Your task to perform on an android device: Go to network settings Image 0: 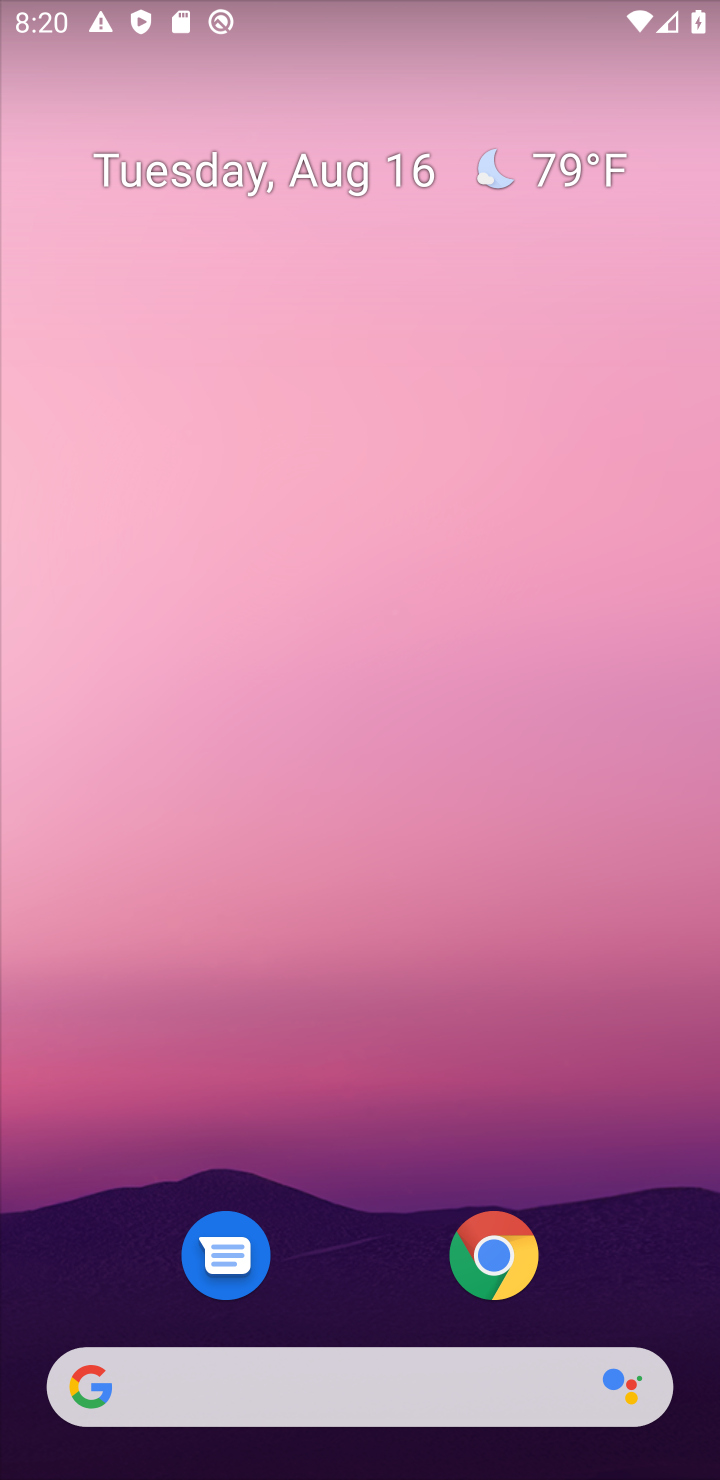
Step 0: drag from (475, 1407) to (555, 336)
Your task to perform on an android device: Go to network settings Image 1: 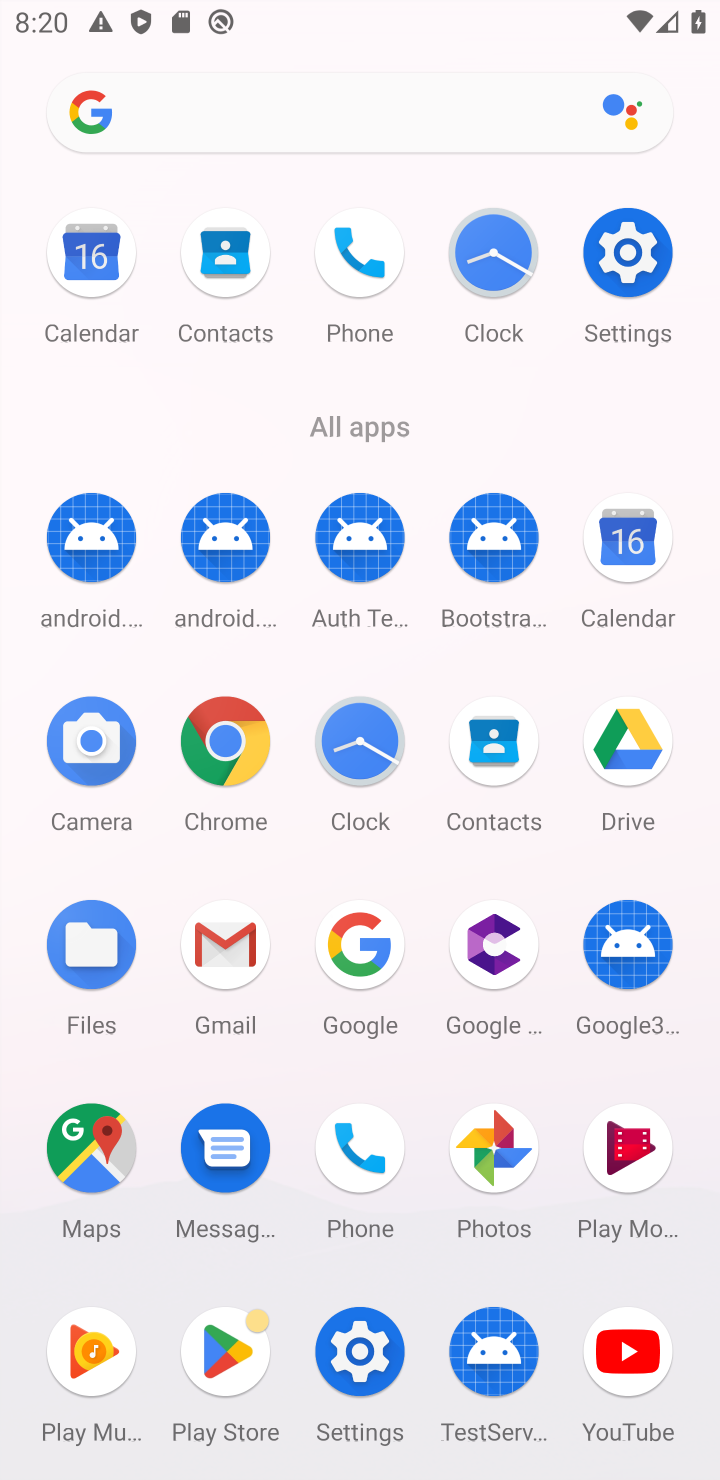
Step 1: click (632, 284)
Your task to perform on an android device: Go to network settings Image 2: 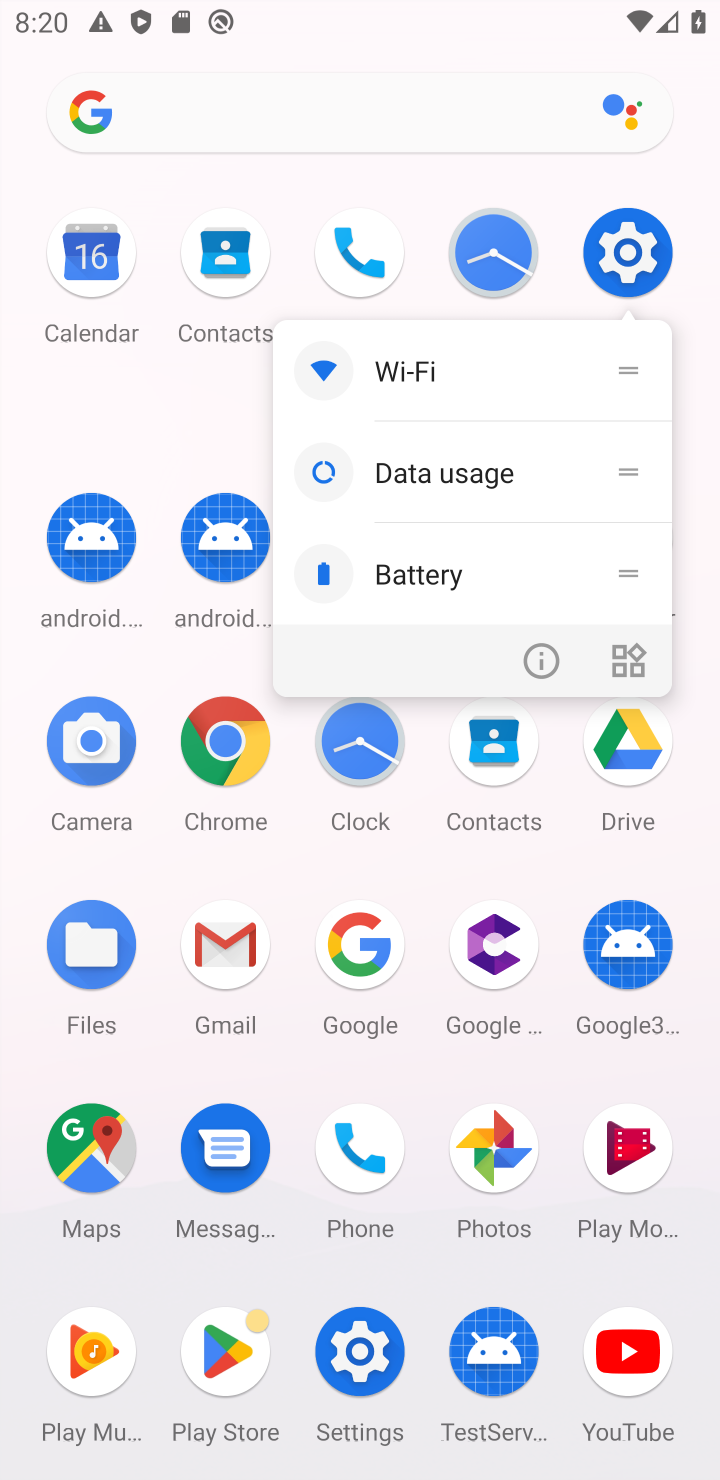
Step 2: click (632, 284)
Your task to perform on an android device: Go to network settings Image 3: 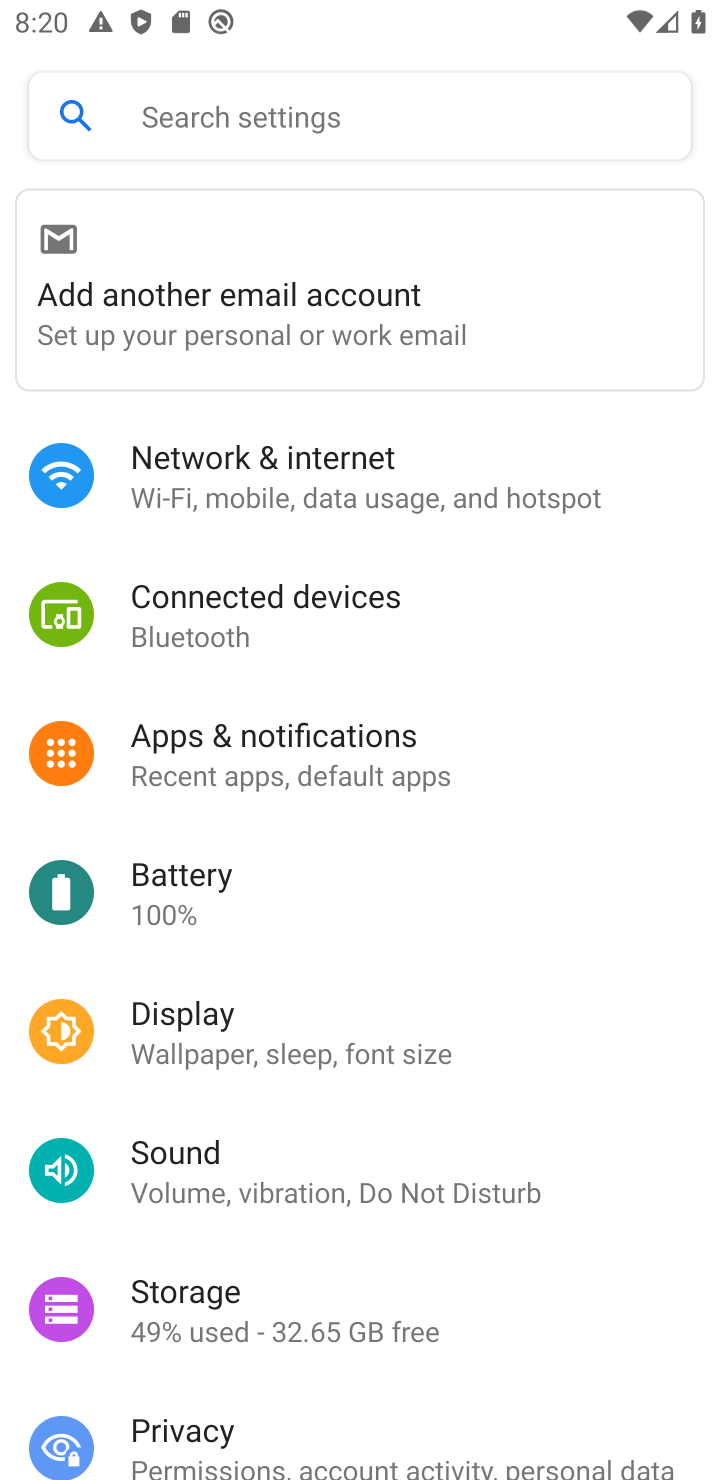
Step 3: click (290, 493)
Your task to perform on an android device: Go to network settings Image 4: 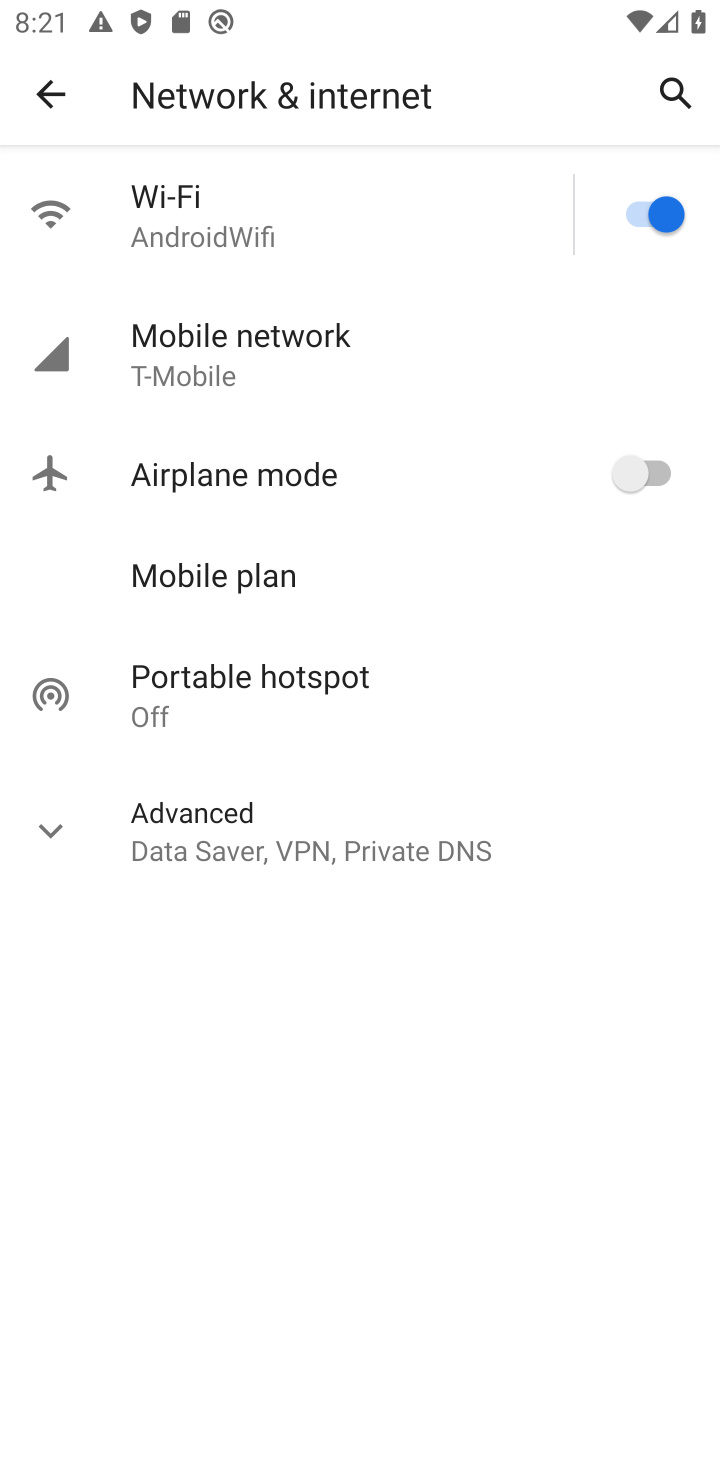
Step 4: task complete